Your task to perform on an android device: delete location history Image 0: 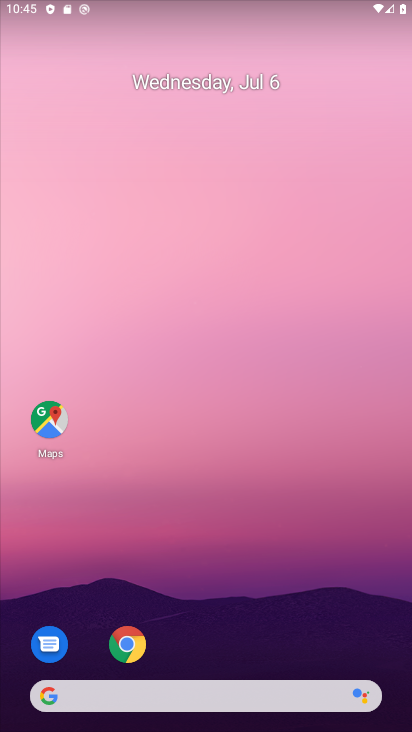
Step 0: drag from (260, 644) to (203, 187)
Your task to perform on an android device: delete location history Image 1: 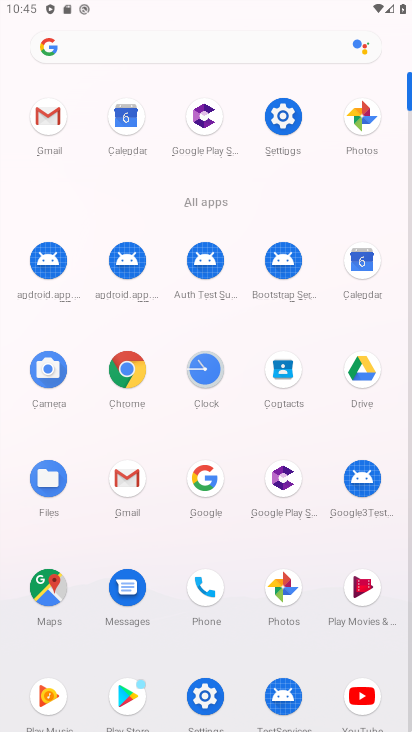
Step 1: click (46, 581)
Your task to perform on an android device: delete location history Image 2: 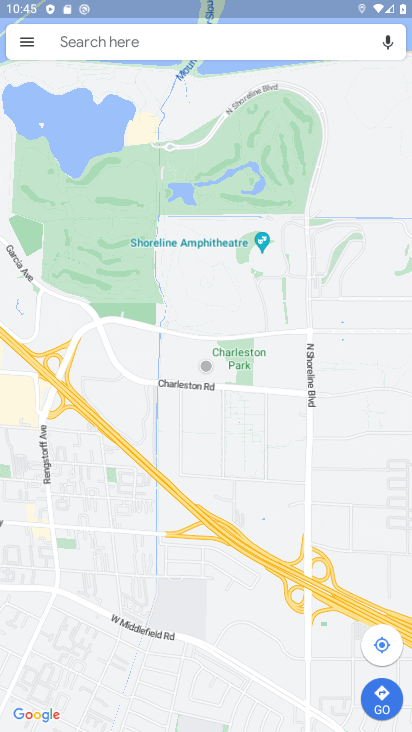
Step 2: click (27, 45)
Your task to perform on an android device: delete location history Image 3: 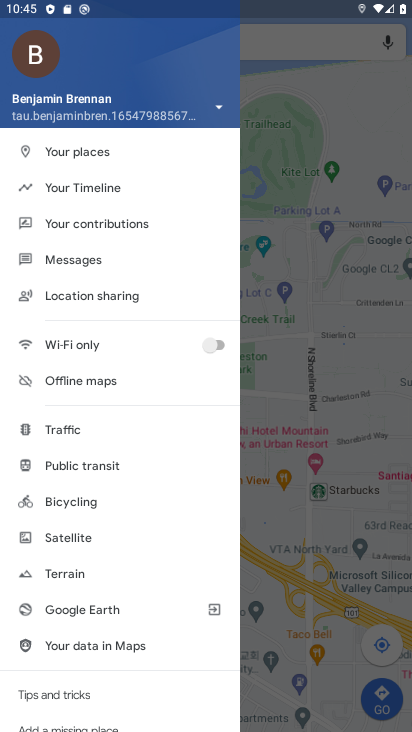
Step 3: click (121, 193)
Your task to perform on an android device: delete location history Image 4: 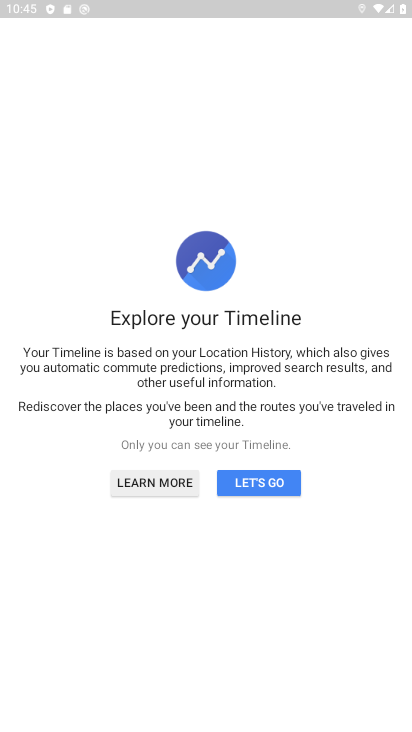
Step 4: click (284, 479)
Your task to perform on an android device: delete location history Image 5: 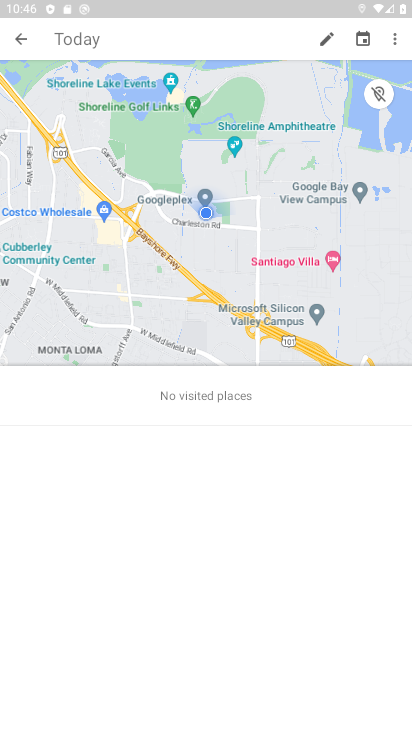
Step 5: click (398, 34)
Your task to perform on an android device: delete location history Image 6: 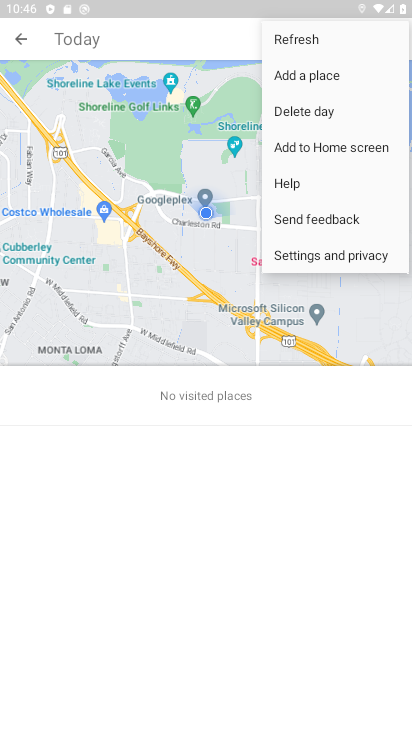
Step 6: click (347, 263)
Your task to perform on an android device: delete location history Image 7: 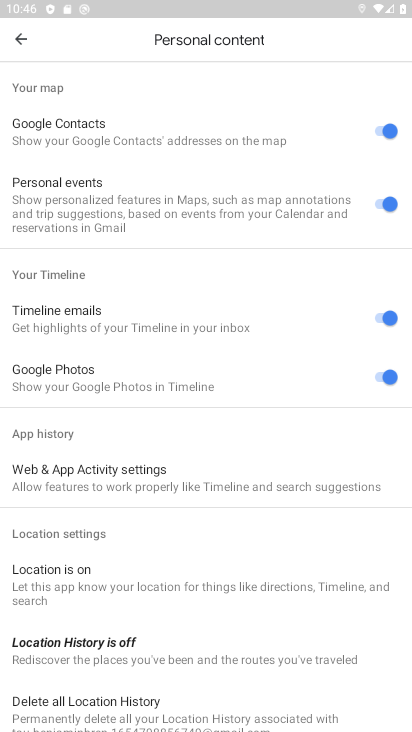
Step 7: click (309, 711)
Your task to perform on an android device: delete location history Image 8: 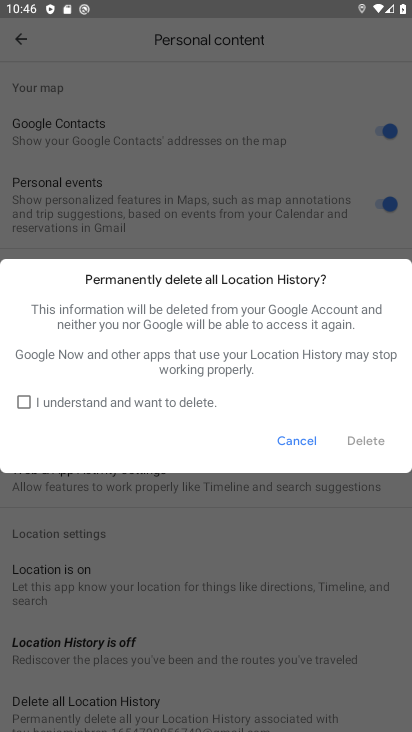
Step 8: click (195, 403)
Your task to perform on an android device: delete location history Image 9: 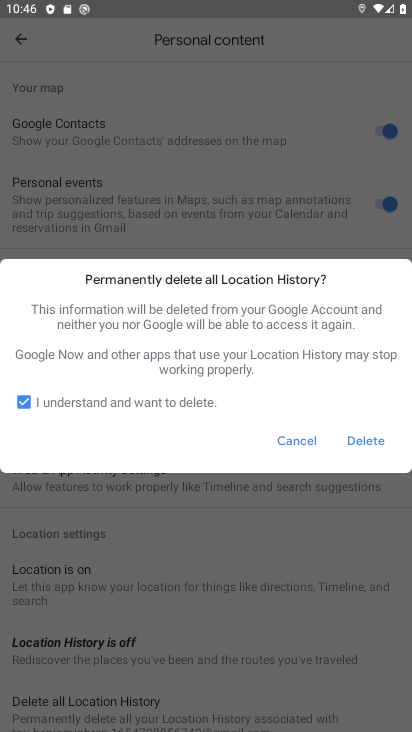
Step 9: click (376, 442)
Your task to perform on an android device: delete location history Image 10: 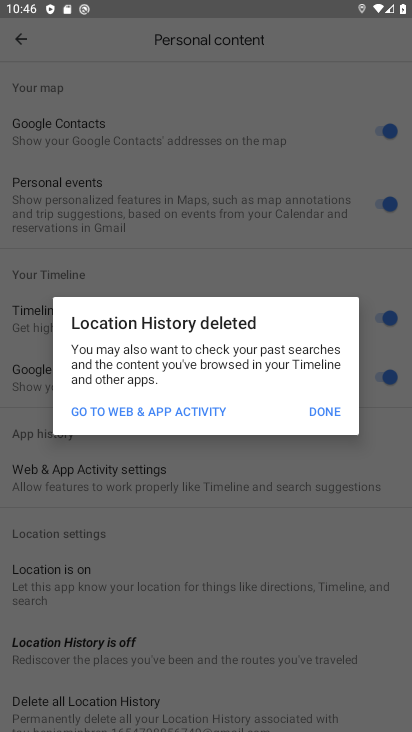
Step 10: click (329, 410)
Your task to perform on an android device: delete location history Image 11: 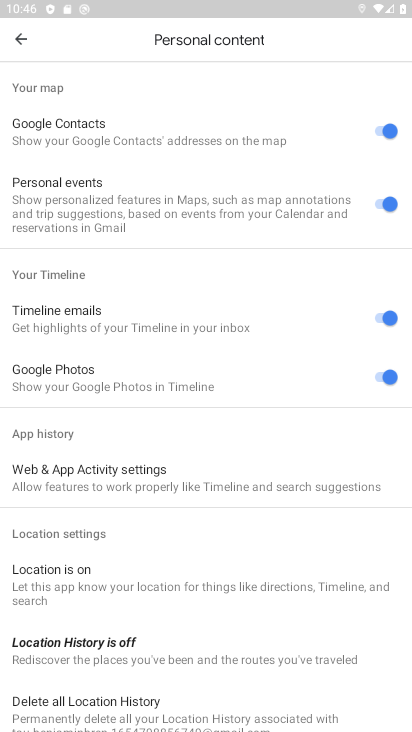
Step 11: task complete